Your task to perform on an android device: see creations saved in the google photos Image 0: 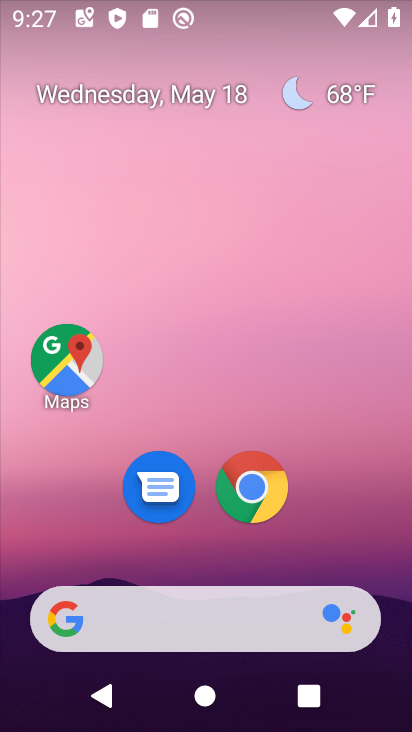
Step 0: drag from (374, 477) to (382, 112)
Your task to perform on an android device: see creations saved in the google photos Image 1: 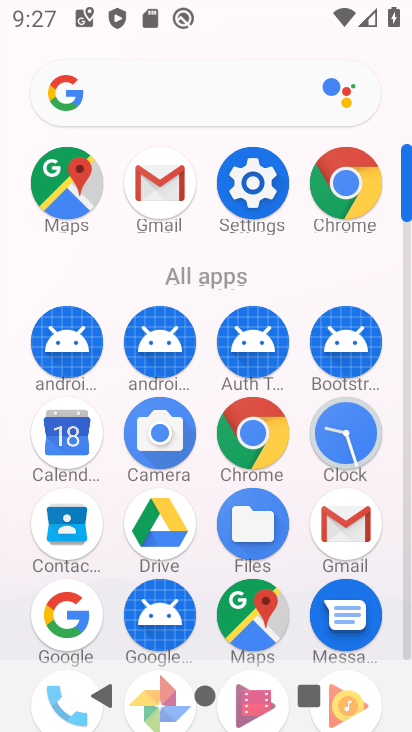
Step 1: drag from (190, 652) to (225, 362)
Your task to perform on an android device: see creations saved in the google photos Image 2: 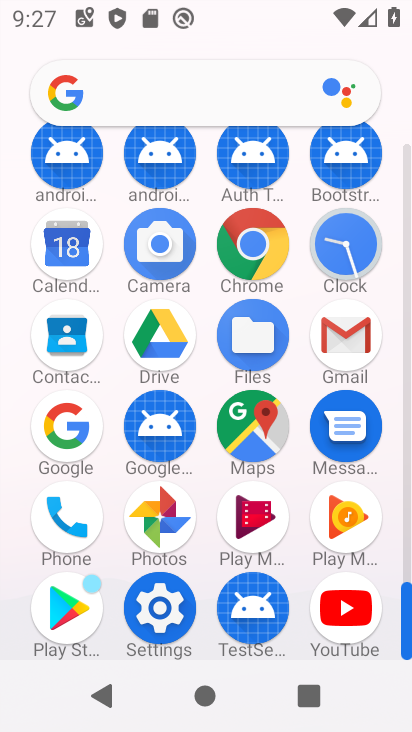
Step 2: click (173, 538)
Your task to perform on an android device: see creations saved in the google photos Image 3: 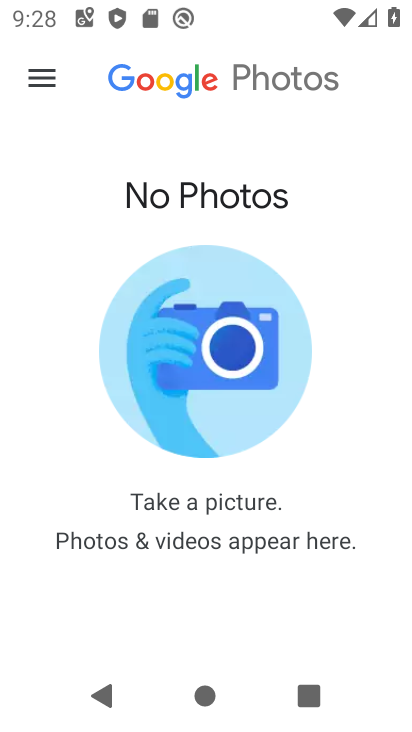
Step 3: click (124, 76)
Your task to perform on an android device: see creations saved in the google photos Image 4: 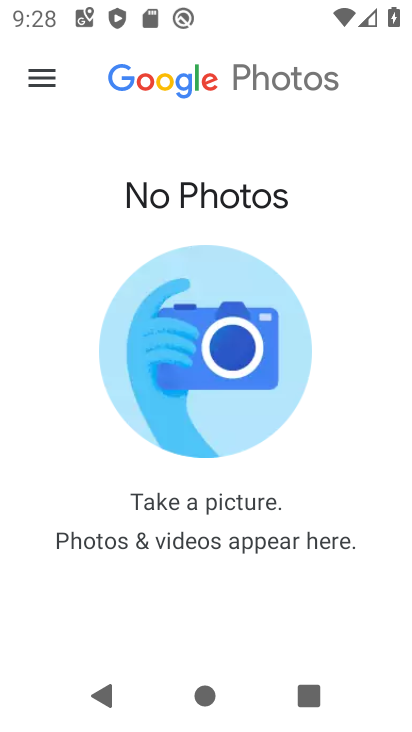
Step 4: click (124, 81)
Your task to perform on an android device: see creations saved in the google photos Image 5: 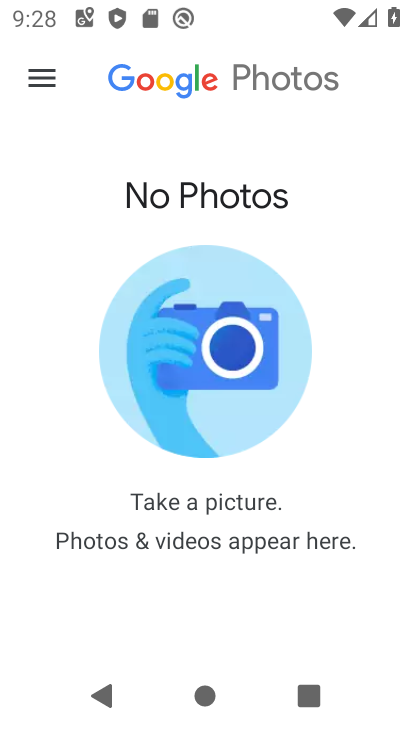
Step 5: press back button
Your task to perform on an android device: see creations saved in the google photos Image 6: 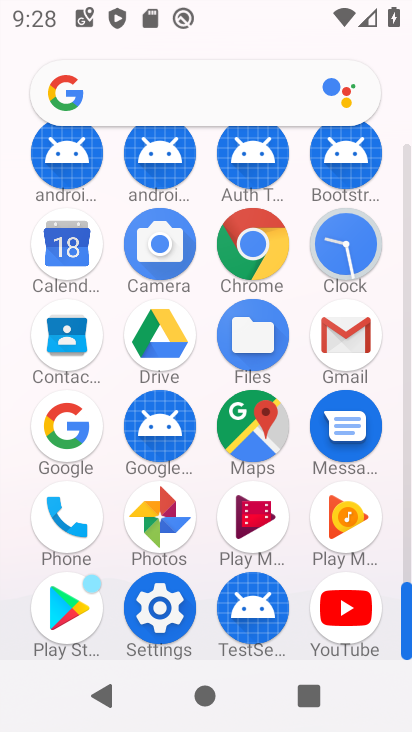
Step 6: click (182, 523)
Your task to perform on an android device: see creations saved in the google photos Image 7: 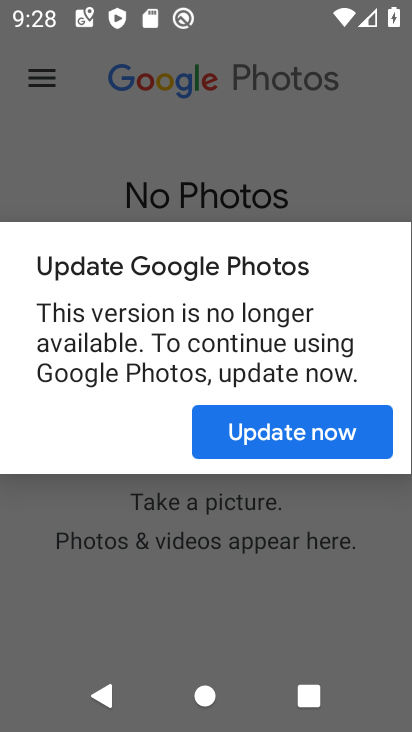
Step 7: click (296, 425)
Your task to perform on an android device: see creations saved in the google photos Image 8: 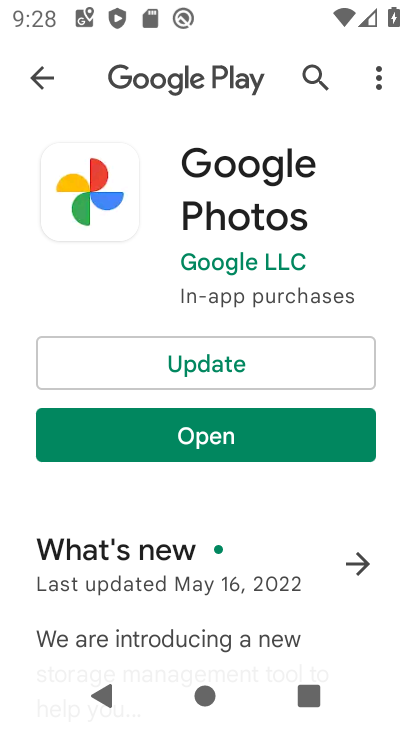
Step 8: click (259, 360)
Your task to perform on an android device: see creations saved in the google photos Image 9: 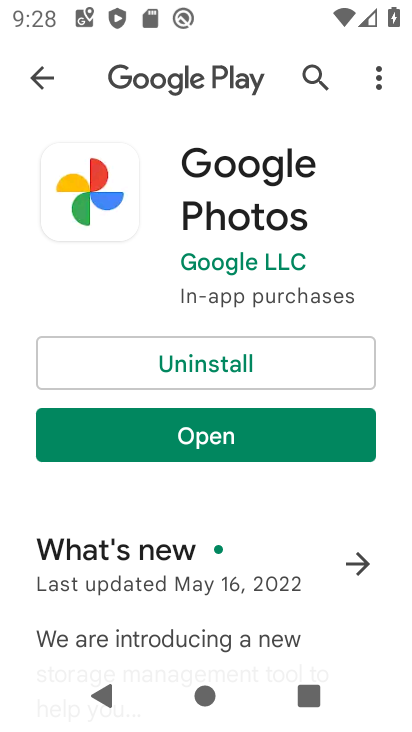
Step 9: click (241, 436)
Your task to perform on an android device: see creations saved in the google photos Image 10: 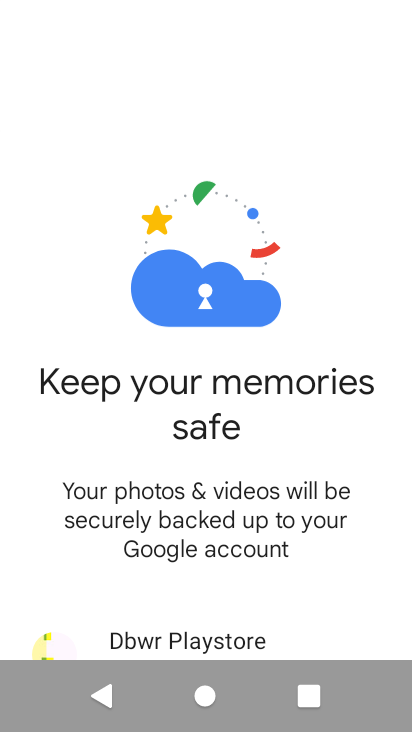
Step 10: click (153, 597)
Your task to perform on an android device: see creations saved in the google photos Image 11: 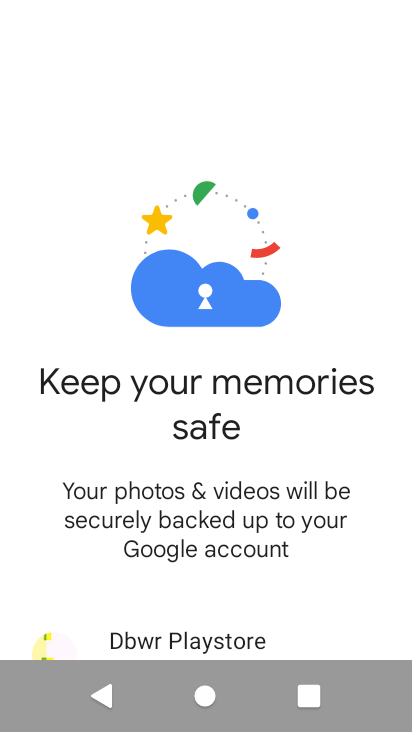
Step 11: drag from (258, 594) to (270, 420)
Your task to perform on an android device: see creations saved in the google photos Image 12: 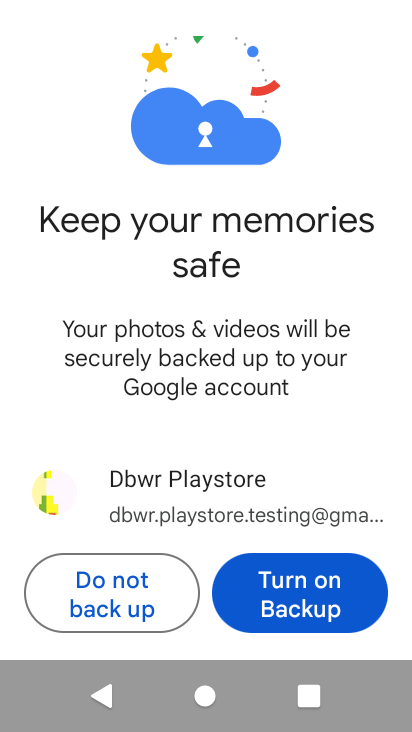
Step 12: click (76, 614)
Your task to perform on an android device: see creations saved in the google photos Image 13: 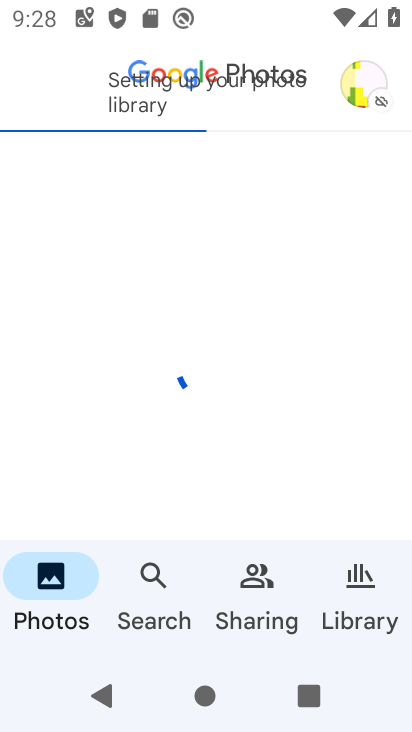
Step 13: click (153, 572)
Your task to perform on an android device: see creations saved in the google photos Image 14: 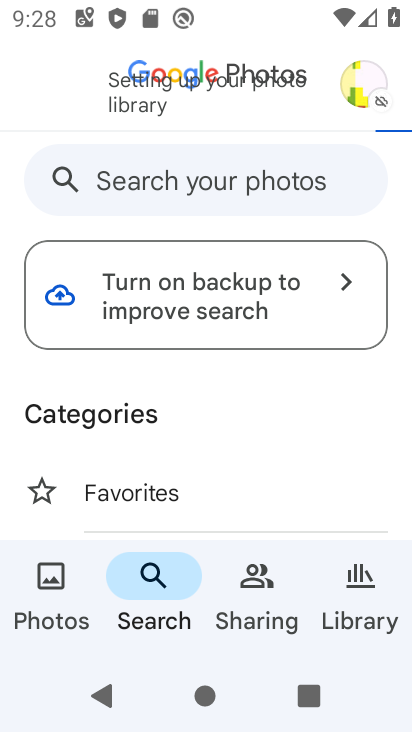
Step 14: click (185, 196)
Your task to perform on an android device: see creations saved in the google photos Image 15: 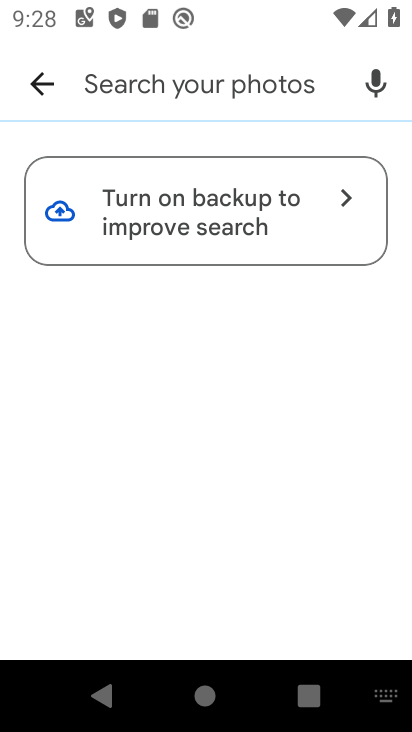
Step 15: type "creations"
Your task to perform on an android device: see creations saved in the google photos Image 16: 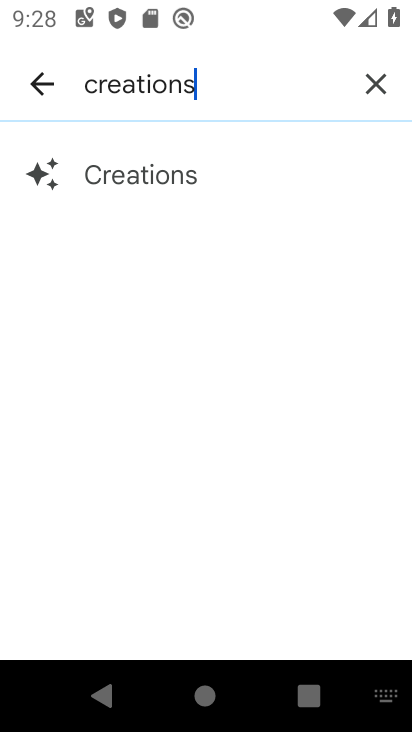
Step 16: click (200, 174)
Your task to perform on an android device: see creations saved in the google photos Image 17: 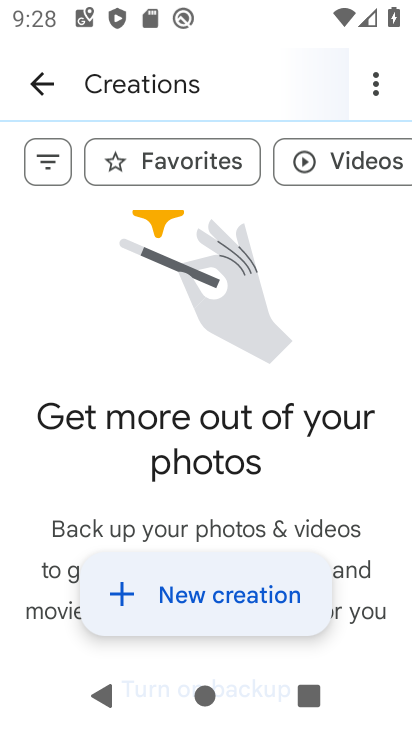
Step 17: task complete